Your task to perform on an android device: toggle pop-ups in chrome Image 0: 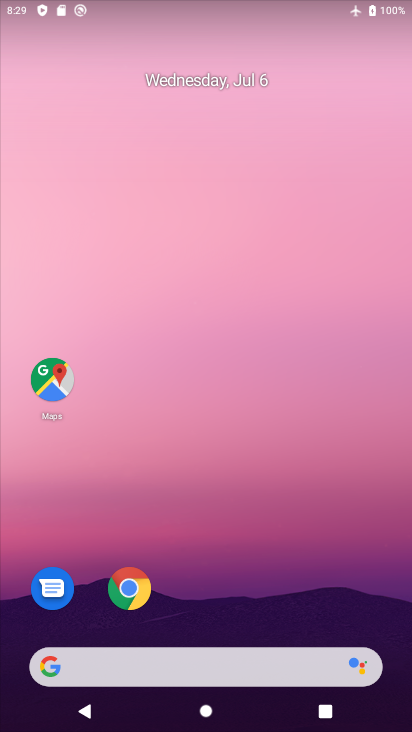
Step 0: click (129, 586)
Your task to perform on an android device: toggle pop-ups in chrome Image 1: 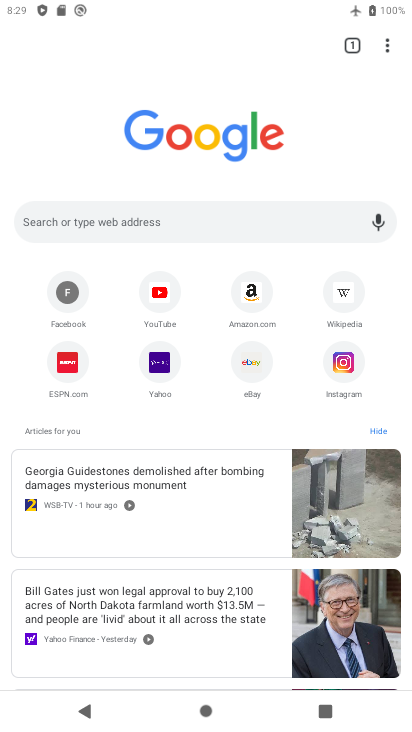
Step 1: click (387, 45)
Your task to perform on an android device: toggle pop-ups in chrome Image 2: 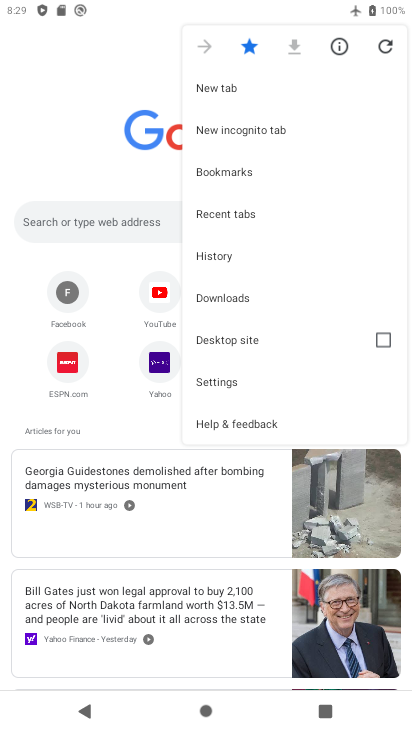
Step 2: click (209, 382)
Your task to perform on an android device: toggle pop-ups in chrome Image 3: 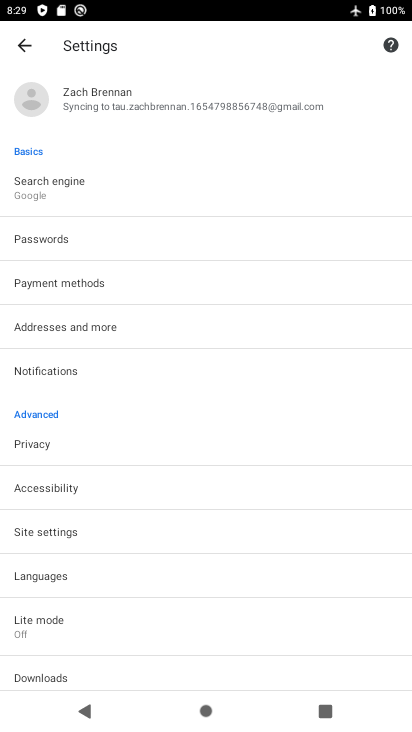
Step 3: drag from (112, 636) to (106, 383)
Your task to perform on an android device: toggle pop-ups in chrome Image 4: 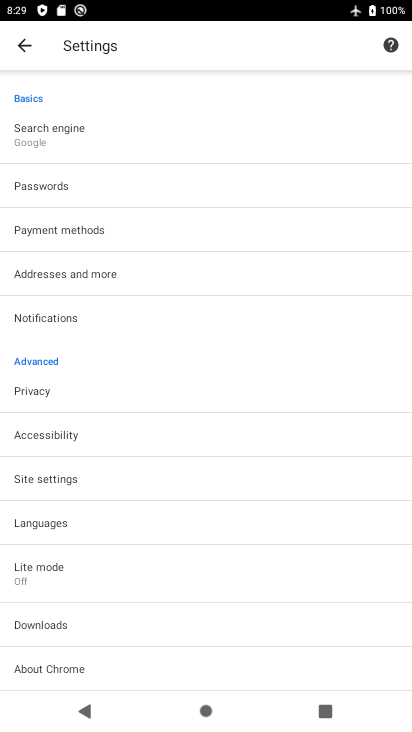
Step 4: drag from (129, 581) to (142, 410)
Your task to perform on an android device: toggle pop-ups in chrome Image 5: 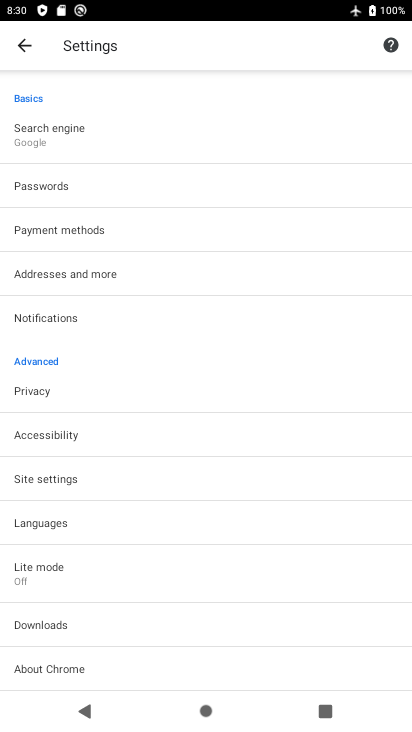
Step 5: click (61, 471)
Your task to perform on an android device: toggle pop-ups in chrome Image 6: 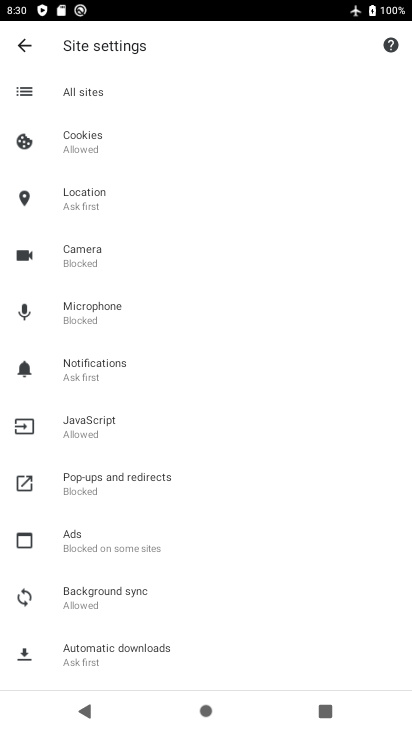
Step 6: click (109, 470)
Your task to perform on an android device: toggle pop-ups in chrome Image 7: 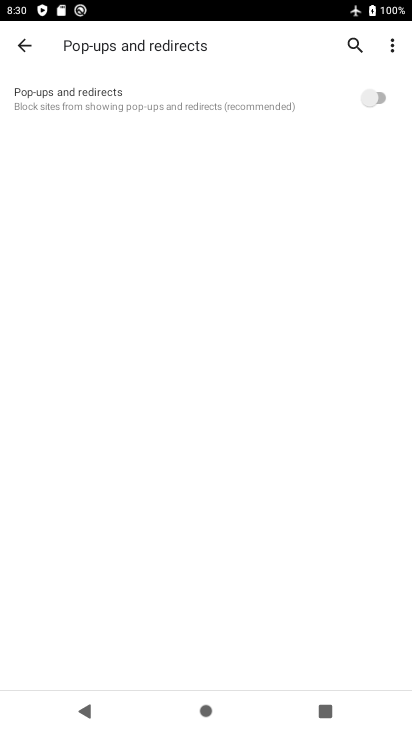
Step 7: click (372, 98)
Your task to perform on an android device: toggle pop-ups in chrome Image 8: 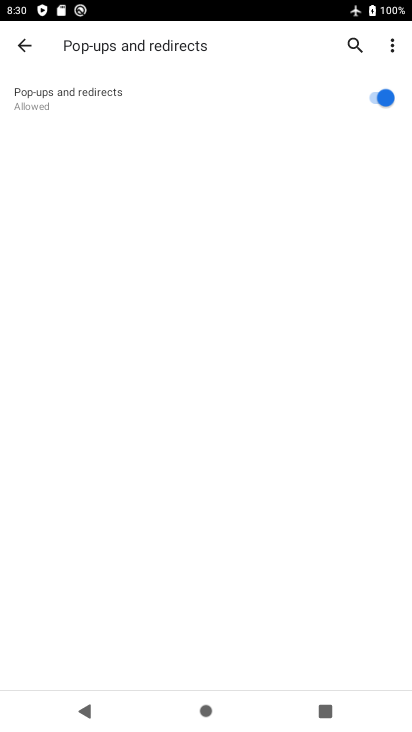
Step 8: task complete